Your task to perform on an android device: Play the last video I watched on Youtube Image 0: 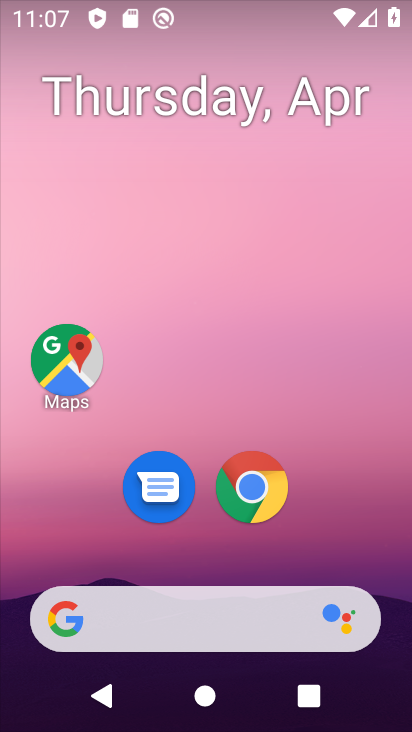
Step 0: drag from (340, 552) to (313, 265)
Your task to perform on an android device: Play the last video I watched on Youtube Image 1: 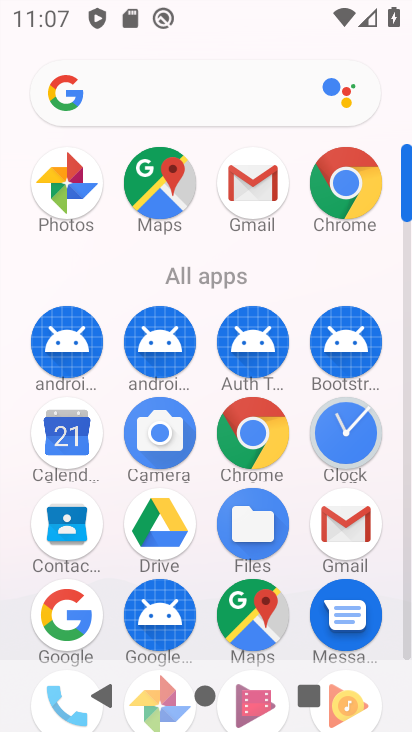
Step 1: drag from (289, 623) to (303, 156)
Your task to perform on an android device: Play the last video I watched on Youtube Image 2: 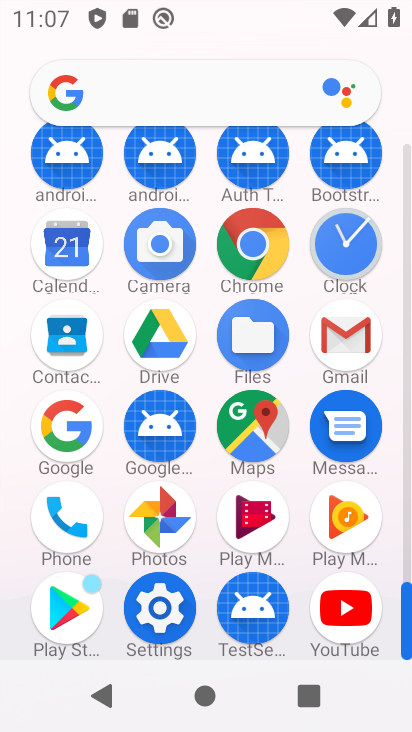
Step 2: click (350, 597)
Your task to perform on an android device: Play the last video I watched on Youtube Image 3: 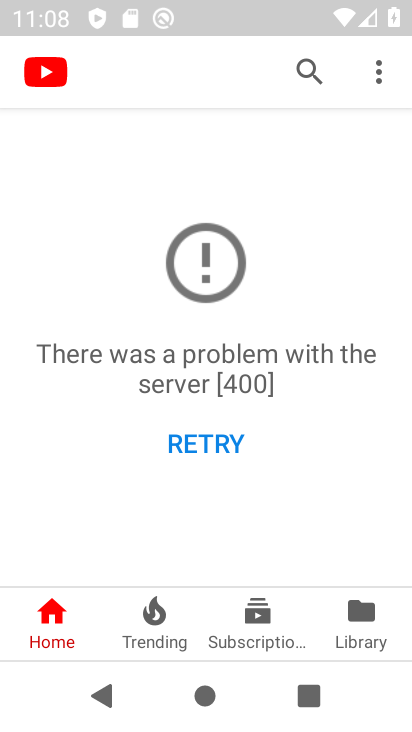
Step 3: click (300, 68)
Your task to perform on an android device: Play the last video I watched on Youtube Image 4: 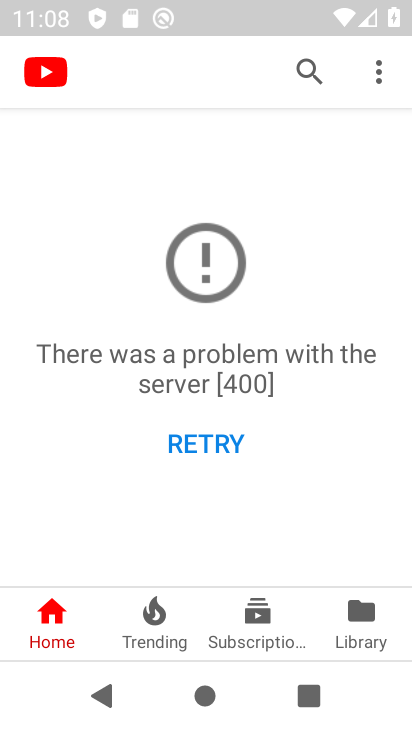
Step 4: click (395, 66)
Your task to perform on an android device: Play the last video I watched on Youtube Image 5: 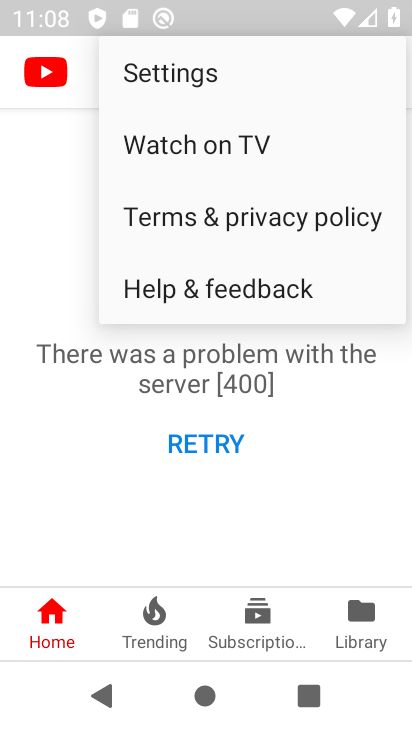
Step 5: click (192, 73)
Your task to perform on an android device: Play the last video I watched on Youtube Image 6: 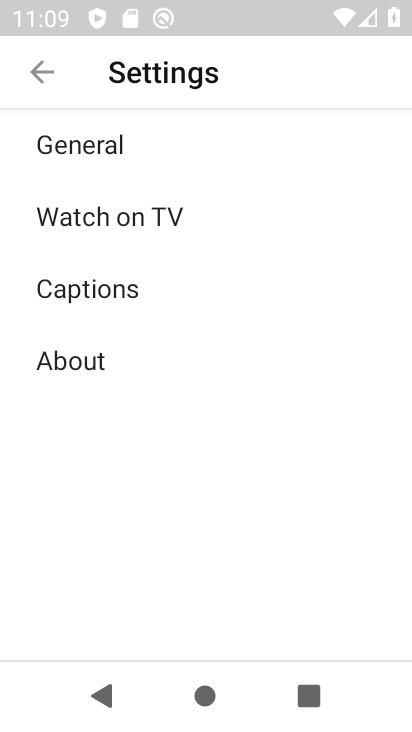
Step 6: click (47, 73)
Your task to perform on an android device: Play the last video I watched on Youtube Image 7: 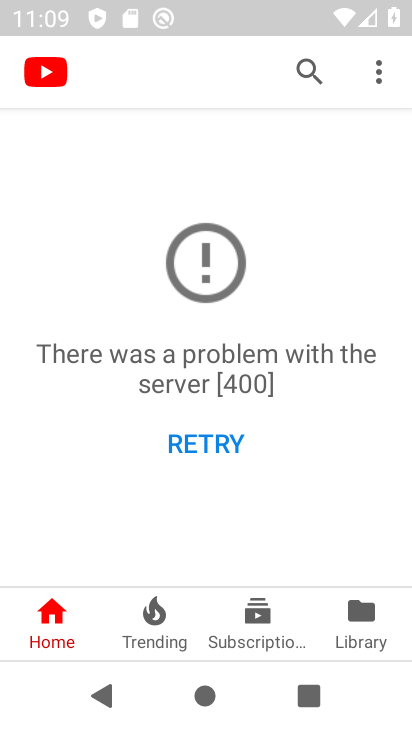
Step 7: click (304, 59)
Your task to perform on an android device: Play the last video I watched on Youtube Image 8: 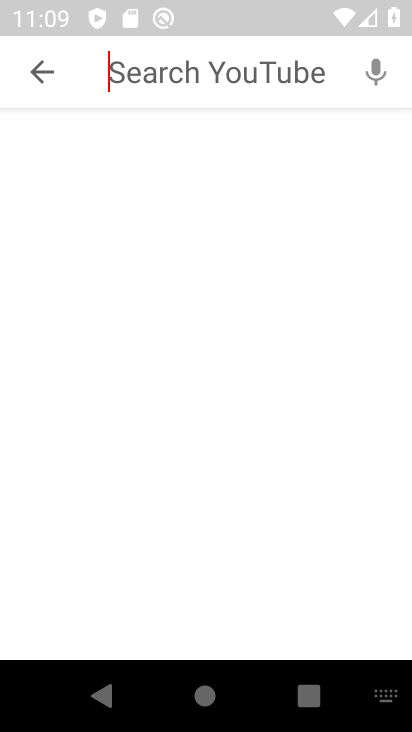
Step 8: type "delhi"
Your task to perform on an android device: Play the last video I watched on Youtube Image 9: 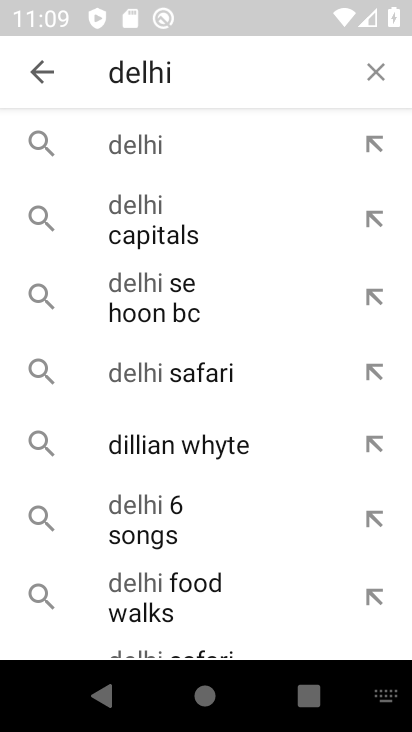
Step 9: click (145, 209)
Your task to perform on an android device: Play the last video I watched on Youtube Image 10: 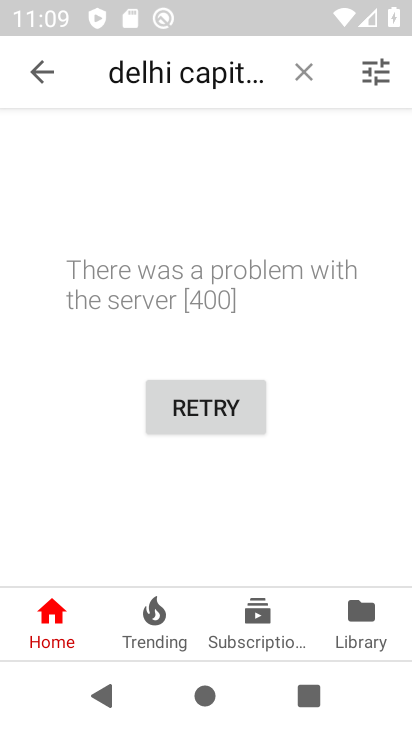
Step 10: task complete